Your task to perform on an android device: empty trash in the gmail app Image 0: 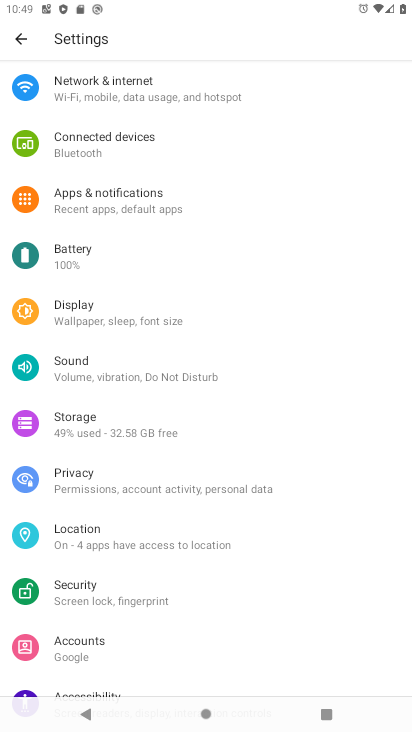
Step 0: press home button
Your task to perform on an android device: empty trash in the gmail app Image 1: 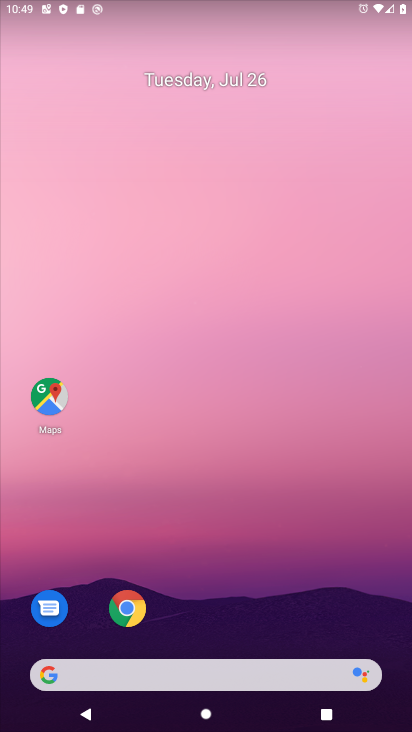
Step 1: drag from (231, 721) to (157, 23)
Your task to perform on an android device: empty trash in the gmail app Image 2: 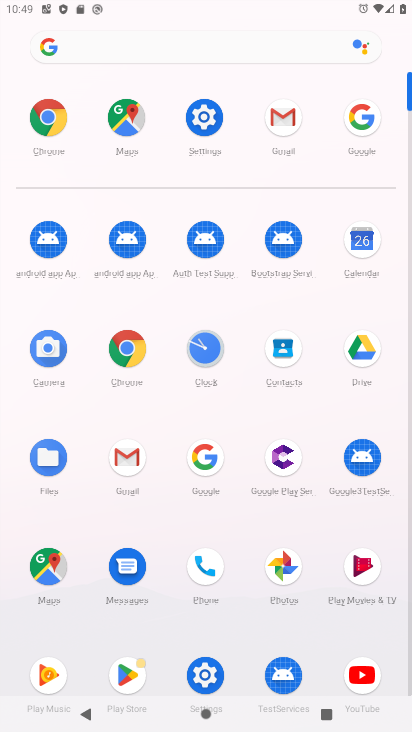
Step 2: click (132, 453)
Your task to perform on an android device: empty trash in the gmail app Image 3: 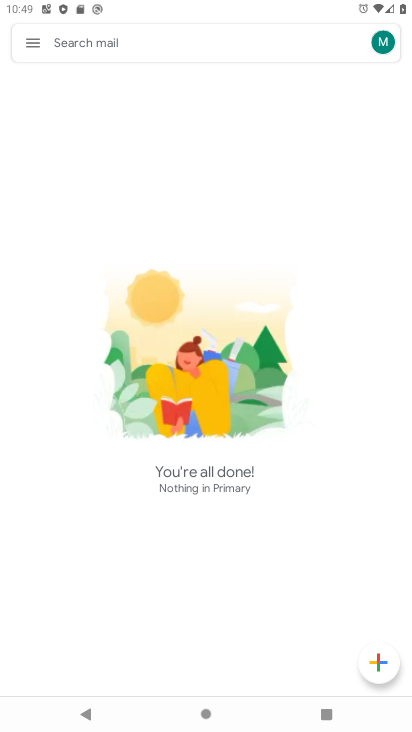
Step 3: click (30, 39)
Your task to perform on an android device: empty trash in the gmail app Image 4: 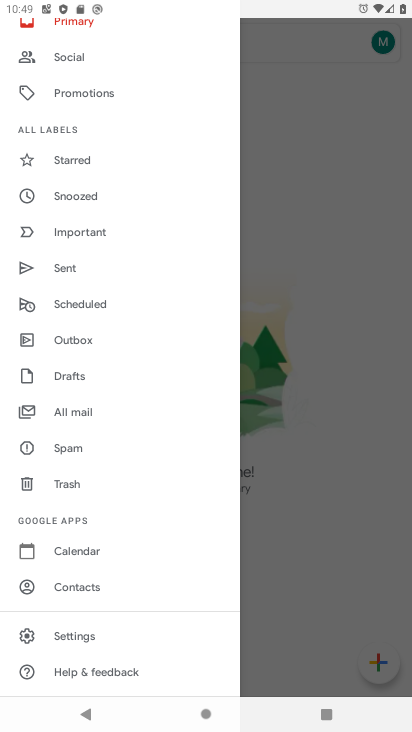
Step 4: drag from (70, 200) to (84, 433)
Your task to perform on an android device: empty trash in the gmail app Image 5: 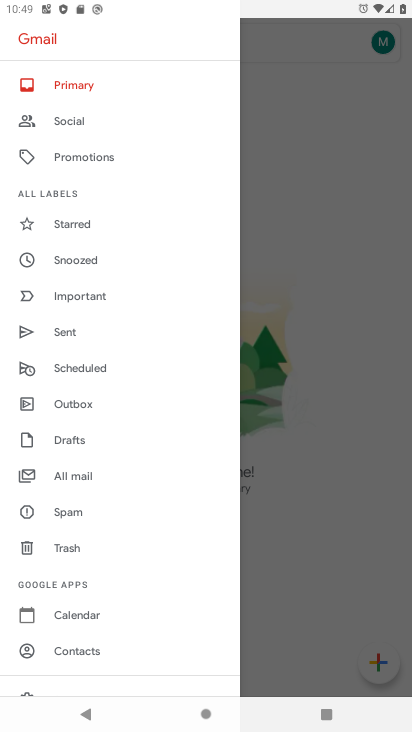
Step 5: click (65, 543)
Your task to perform on an android device: empty trash in the gmail app Image 6: 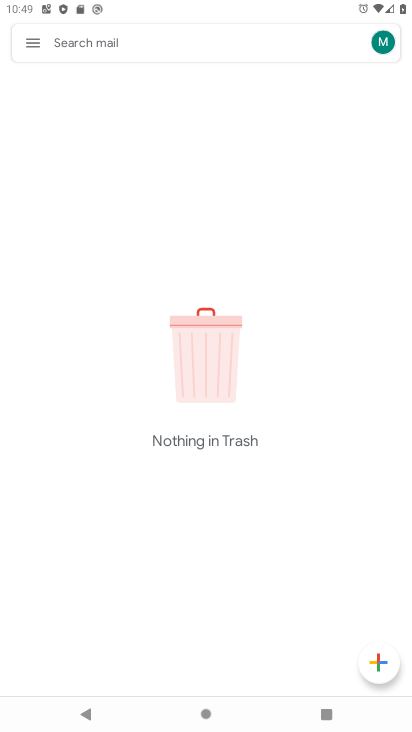
Step 6: task complete